Your task to perform on an android device: Open calendar and show me the third week of next month Image 0: 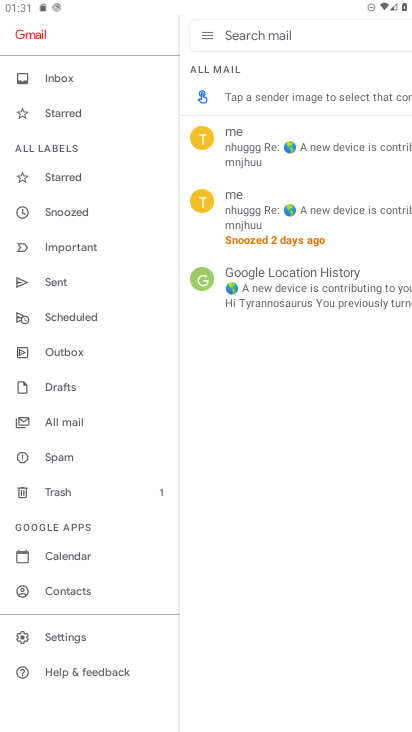
Step 0: press home button
Your task to perform on an android device: Open calendar and show me the third week of next month Image 1: 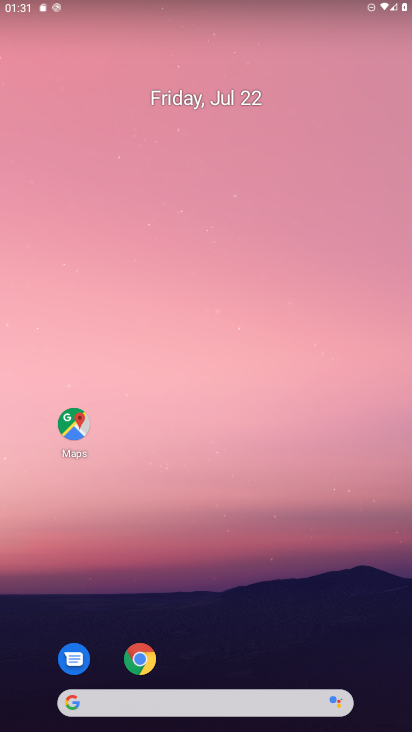
Step 1: drag from (197, 701) to (165, 65)
Your task to perform on an android device: Open calendar and show me the third week of next month Image 2: 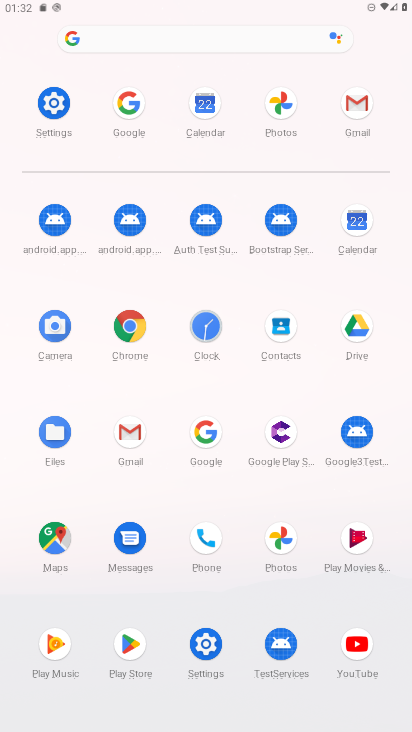
Step 2: click (356, 221)
Your task to perform on an android device: Open calendar and show me the third week of next month Image 3: 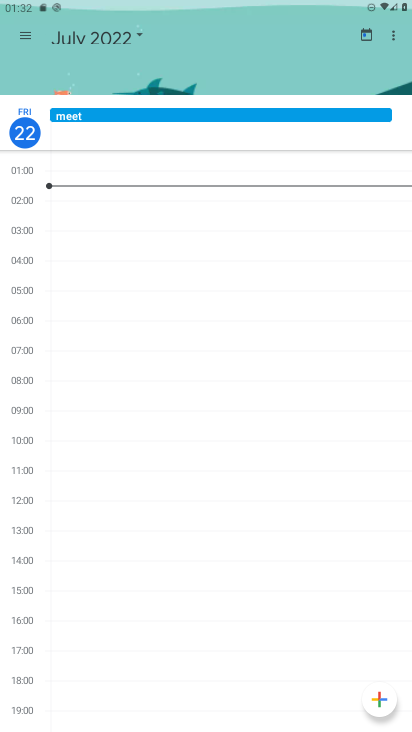
Step 3: click (367, 35)
Your task to perform on an android device: Open calendar and show me the third week of next month Image 4: 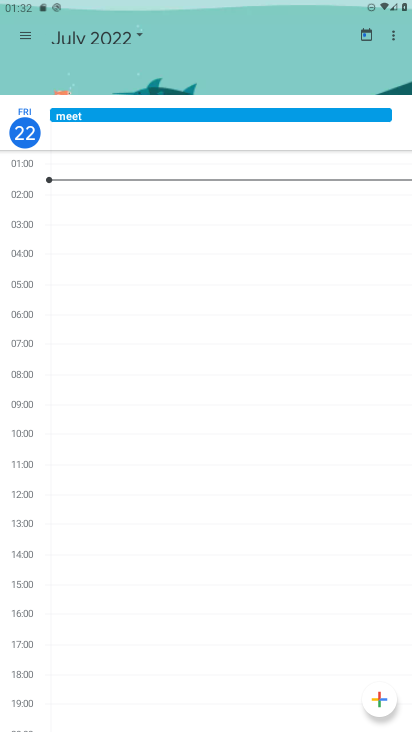
Step 4: click (138, 32)
Your task to perform on an android device: Open calendar and show me the third week of next month Image 5: 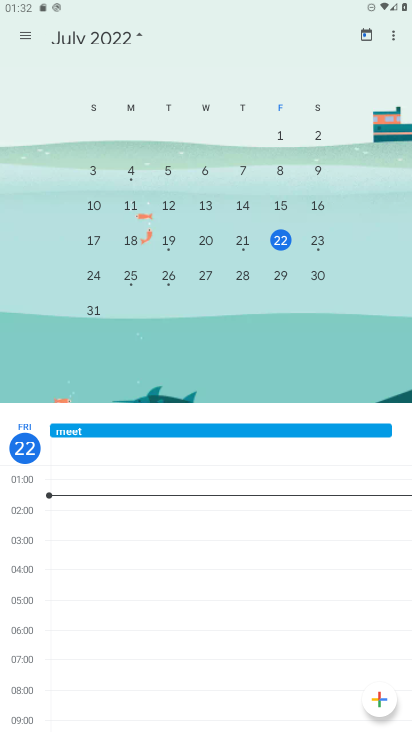
Step 5: drag from (334, 248) to (18, 328)
Your task to perform on an android device: Open calendar and show me the third week of next month Image 6: 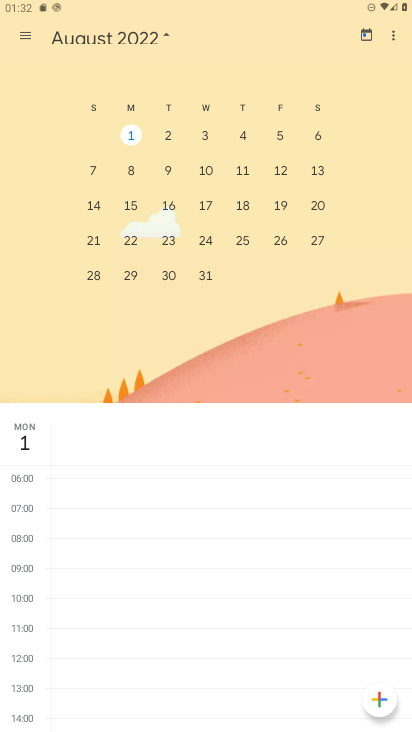
Step 6: click (131, 204)
Your task to perform on an android device: Open calendar and show me the third week of next month Image 7: 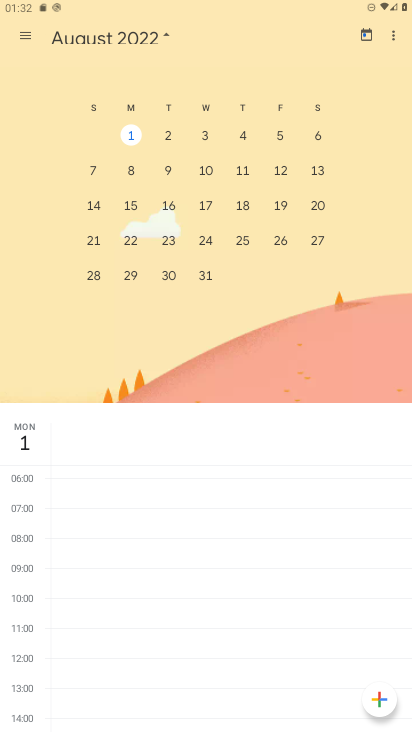
Step 7: click (131, 204)
Your task to perform on an android device: Open calendar and show me the third week of next month Image 8: 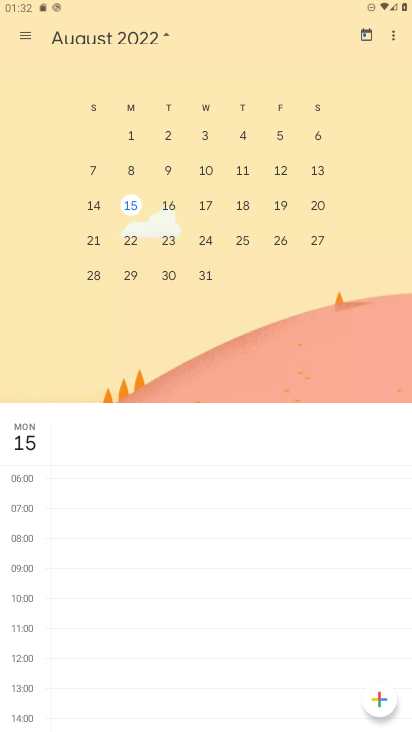
Step 8: click (25, 39)
Your task to perform on an android device: Open calendar and show me the third week of next month Image 9: 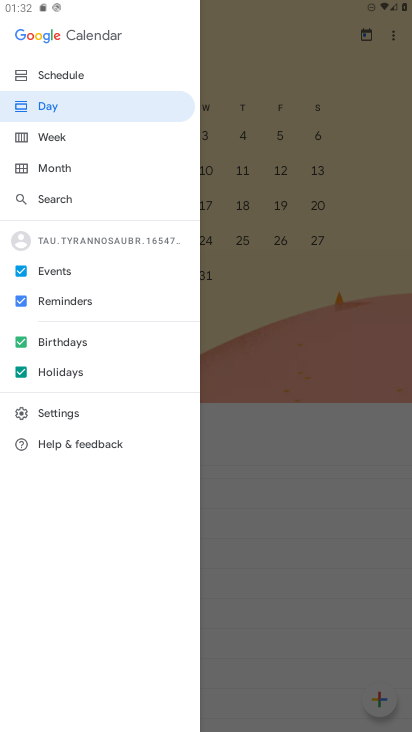
Step 9: click (60, 137)
Your task to perform on an android device: Open calendar and show me the third week of next month Image 10: 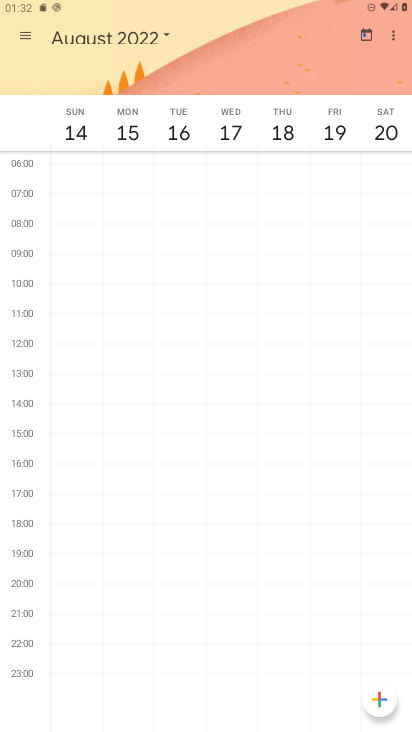
Step 10: task complete